Your task to perform on an android device: turn pop-ups off in chrome Image 0: 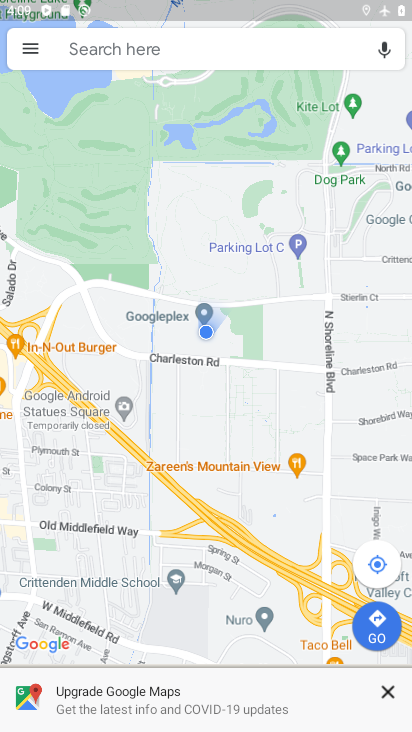
Step 0: press home button
Your task to perform on an android device: turn pop-ups off in chrome Image 1: 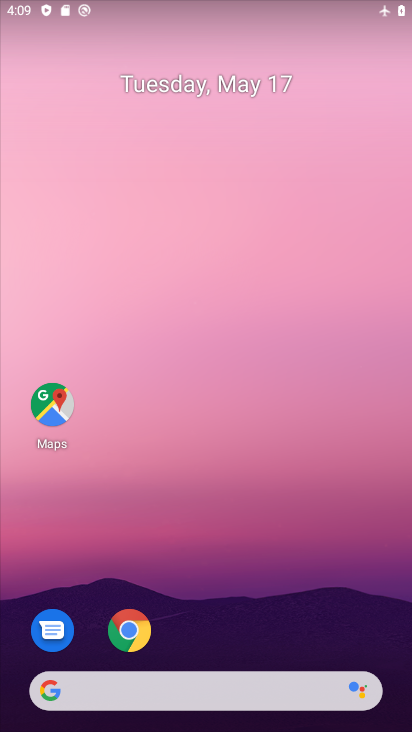
Step 1: click (132, 631)
Your task to perform on an android device: turn pop-ups off in chrome Image 2: 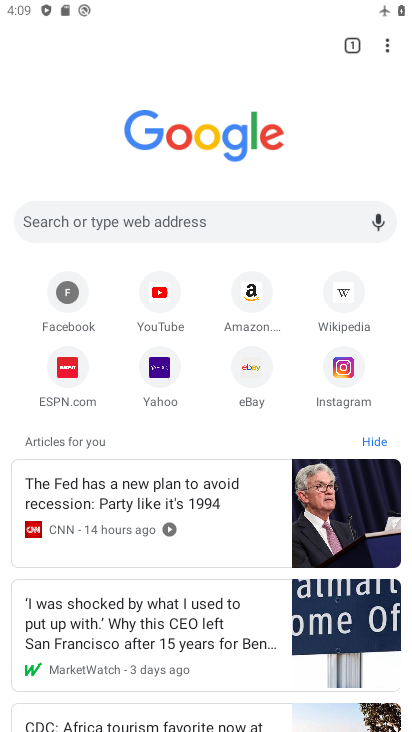
Step 2: click (388, 50)
Your task to perform on an android device: turn pop-ups off in chrome Image 3: 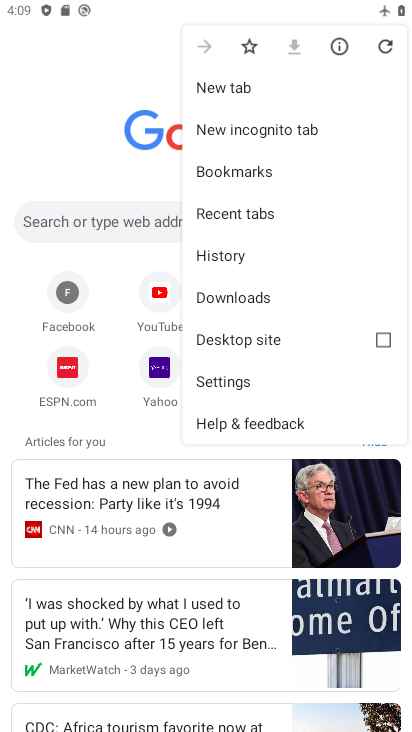
Step 3: click (231, 378)
Your task to perform on an android device: turn pop-ups off in chrome Image 4: 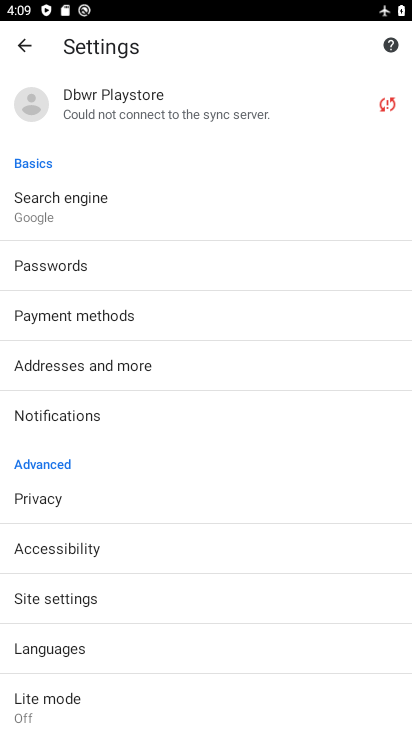
Step 4: drag from (127, 573) to (142, 394)
Your task to perform on an android device: turn pop-ups off in chrome Image 5: 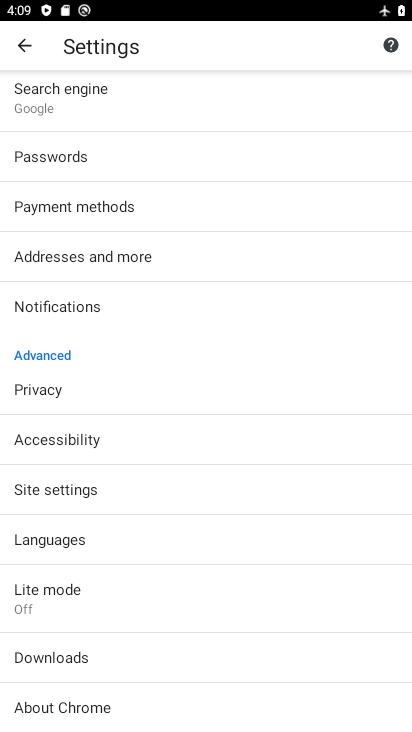
Step 5: click (80, 485)
Your task to perform on an android device: turn pop-ups off in chrome Image 6: 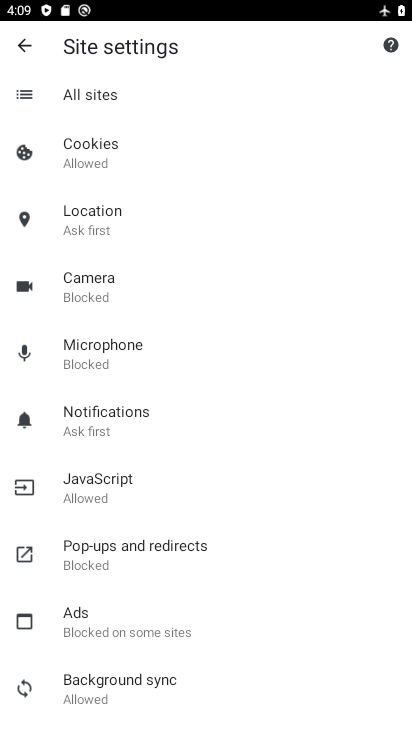
Step 6: drag from (119, 626) to (146, 455)
Your task to perform on an android device: turn pop-ups off in chrome Image 7: 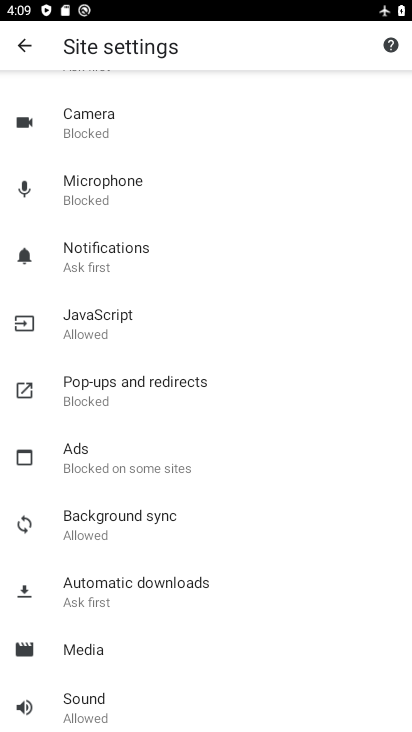
Step 7: drag from (123, 637) to (159, 350)
Your task to perform on an android device: turn pop-ups off in chrome Image 8: 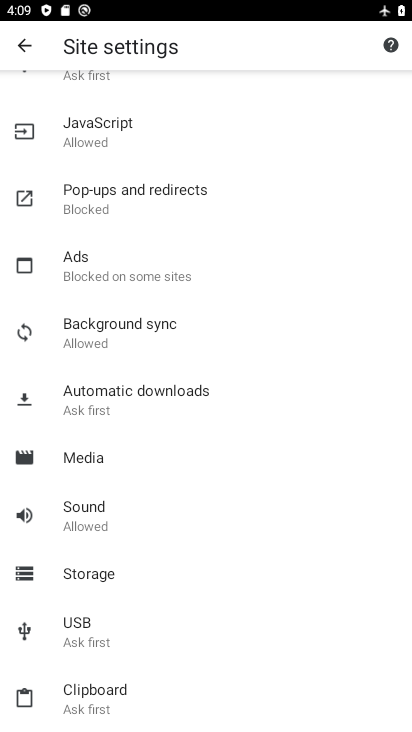
Step 8: drag from (160, 588) to (174, 264)
Your task to perform on an android device: turn pop-ups off in chrome Image 9: 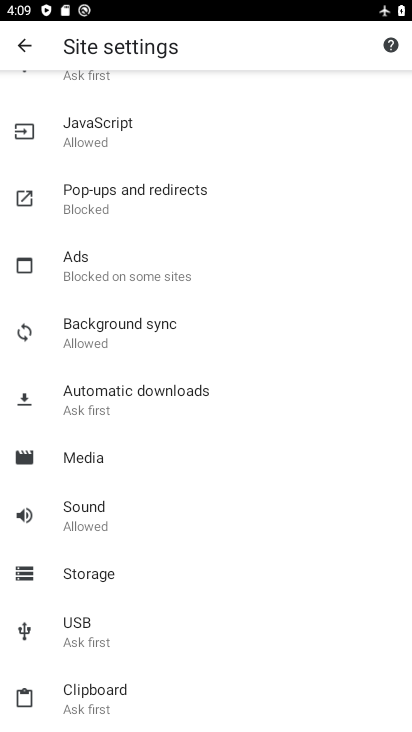
Step 9: drag from (225, 152) to (221, 371)
Your task to perform on an android device: turn pop-ups off in chrome Image 10: 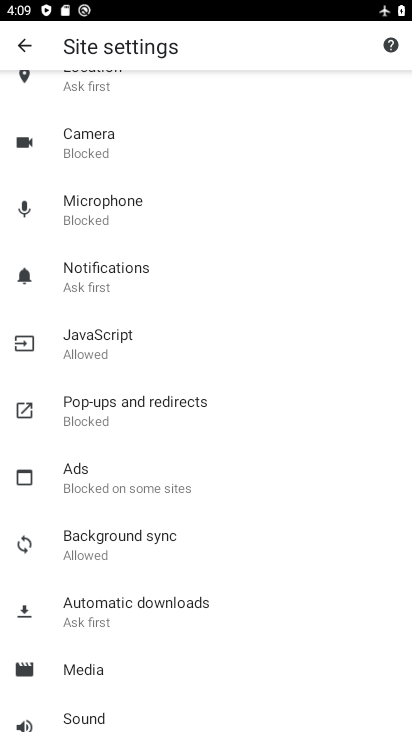
Step 10: drag from (214, 172) to (211, 396)
Your task to perform on an android device: turn pop-ups off in chrome Image 11: 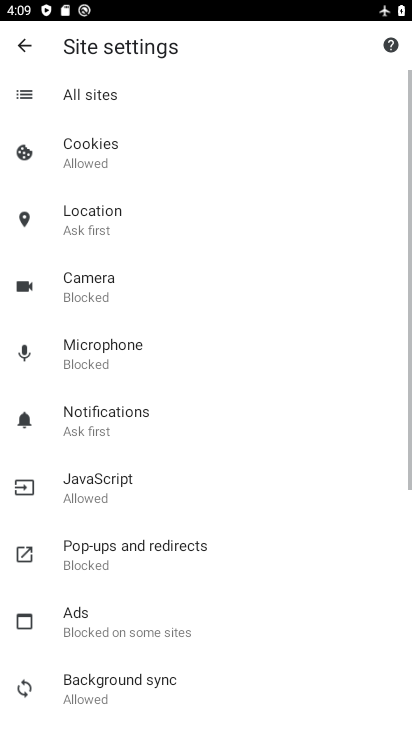
Step 11: click (97, 548)
Your task to perform on an android device: turn pop-ups off in chrome Image 12: 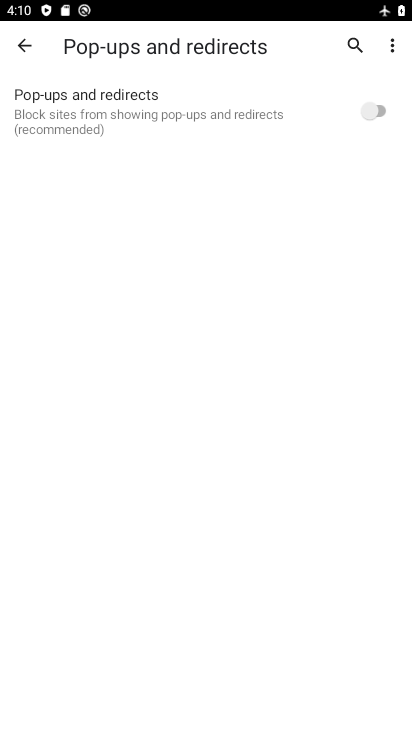
Step 12: task complete